Your task to perform on an android device: Open the Play Movies app and select the watchlist tab. Image 0: 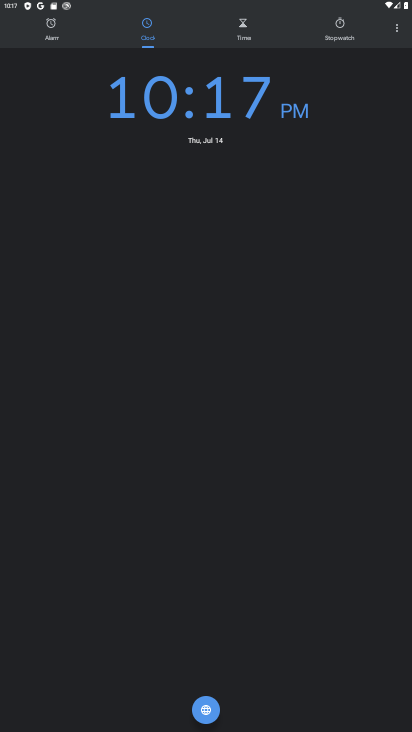
Step 0: press home button
Your task to perform on an android device: Open the Play Movies app and select the watchlist tab. Image 1: 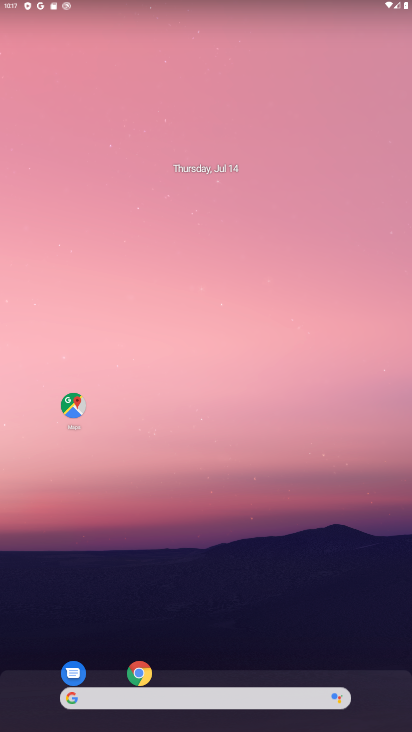
Step 1: drag from (299, 657) to (377, 0)
Your task to perform on an android device: Open the Play Movies app and select the watchlist tab. Image 2: 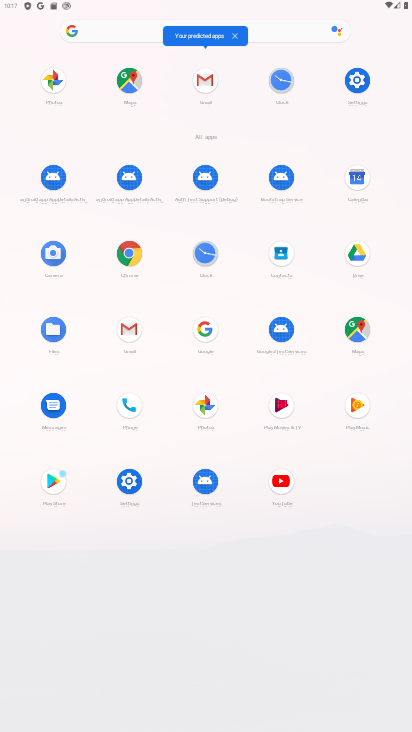
Step 2: click (290, 411)
Your task to perform on an android device: Open the Play Movies app and select the watchlist tab. Image 3: 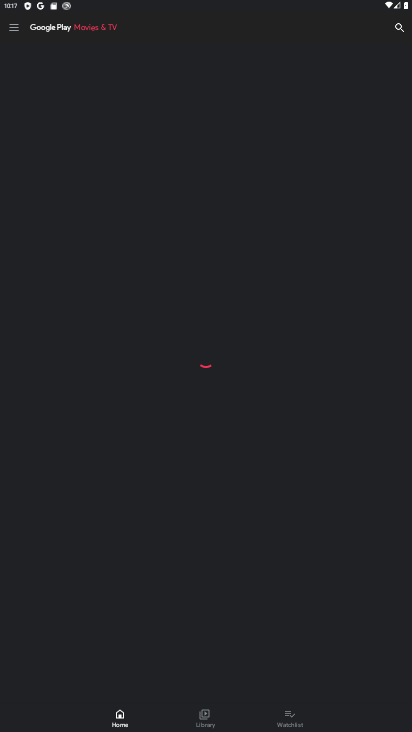
Step 3: click (290, 717)
Your task to perform on an android device: Open the Play Movies app and select the watchlist tab. Image 4: 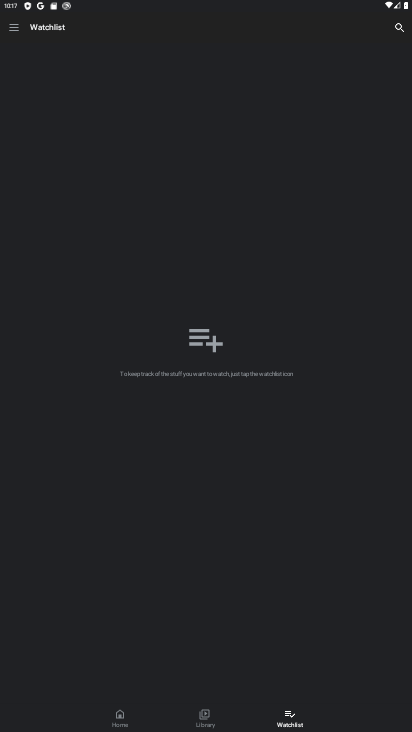
Step 4: task complete